Your task to perform on an android device: turn off javascript in the chrome app Image 0: 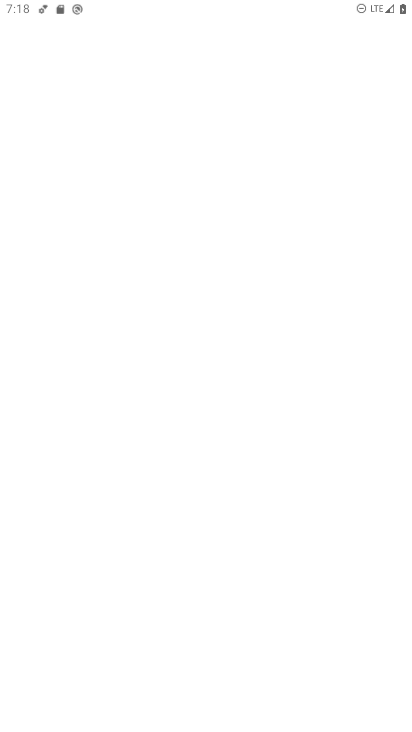
Step 0: drag from (244, 598) to (176, 78)
Your task to perform on an android device: turn off javascript in the chrome app Image 1: 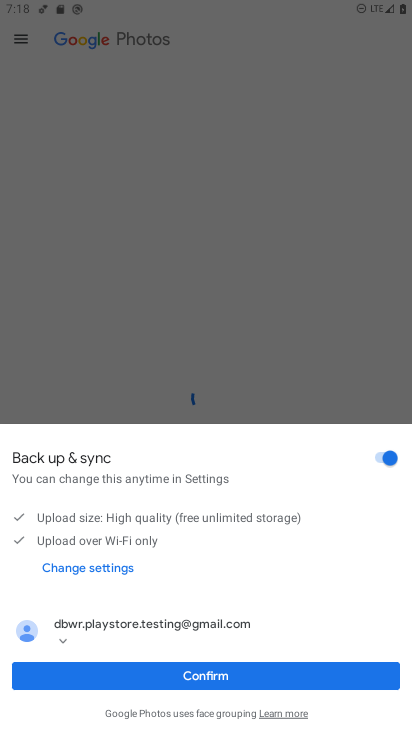
Step 1: press home button
Your task to perform on an android device: turn off javascript in the chrome app Image 2: 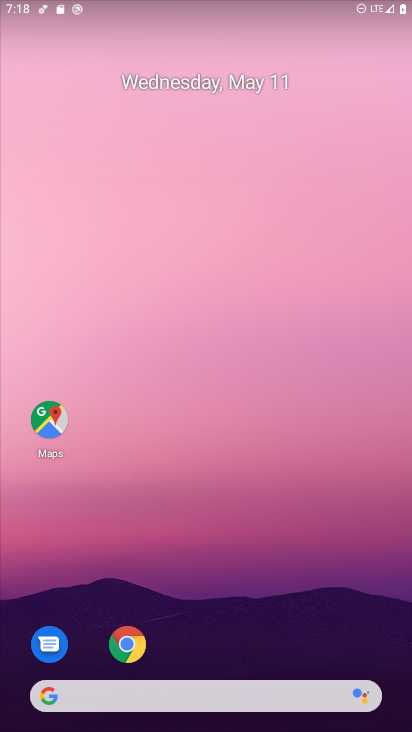
Step 2: click (126, 644)
Your task to perform on an android device: turn off javascript in the chrome app Image 3: 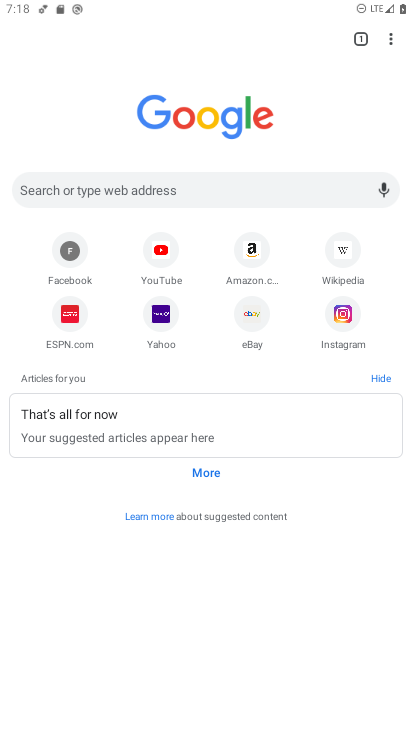
Step 3: click (389, 42)
Your task to perform on an android device: turn off javascript in the chrome app Image 4: 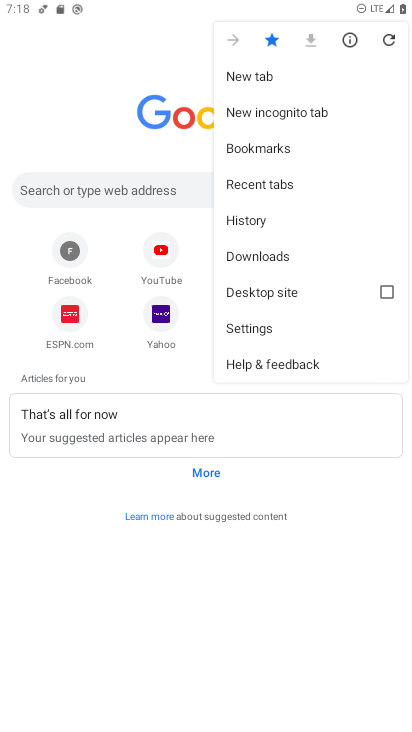
Step 4: click (257, 322)
Your task to perform on an android device: turn off javascript in the chrome app Image 5: 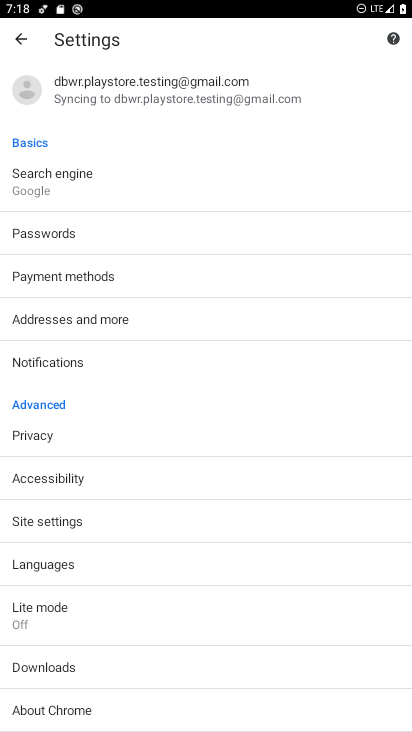
Step 5: click (62, 520)
Your task to perform on an android device: turn off javascript in the chrome app Image 6: 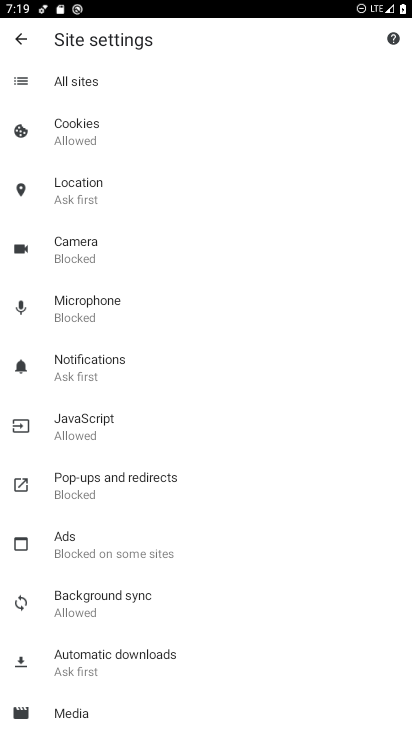
Step 6: click (86, 419)
Your task to perform on an android device: turn off javascript in the chrome app Image 7: 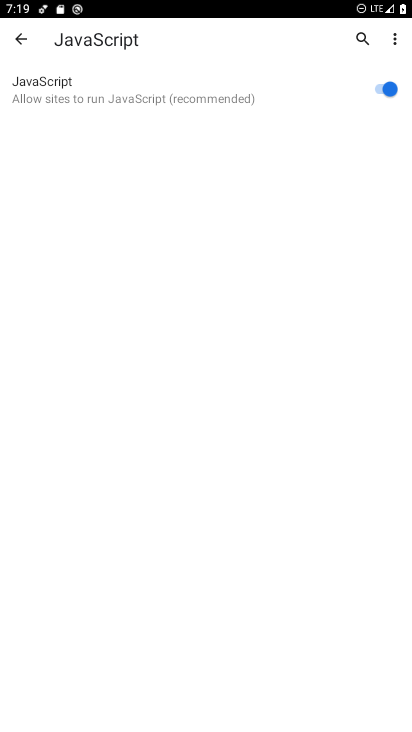
Step 7: click (384, 86)
Your task to perform on an android device: turn off javascript in the chrome app Image 8: 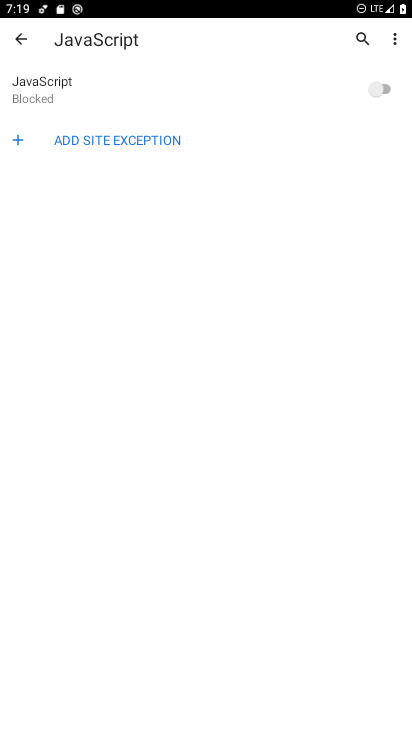
Step 8: task complete